Your task to perform on an android device: What's the weather today? Image 0: 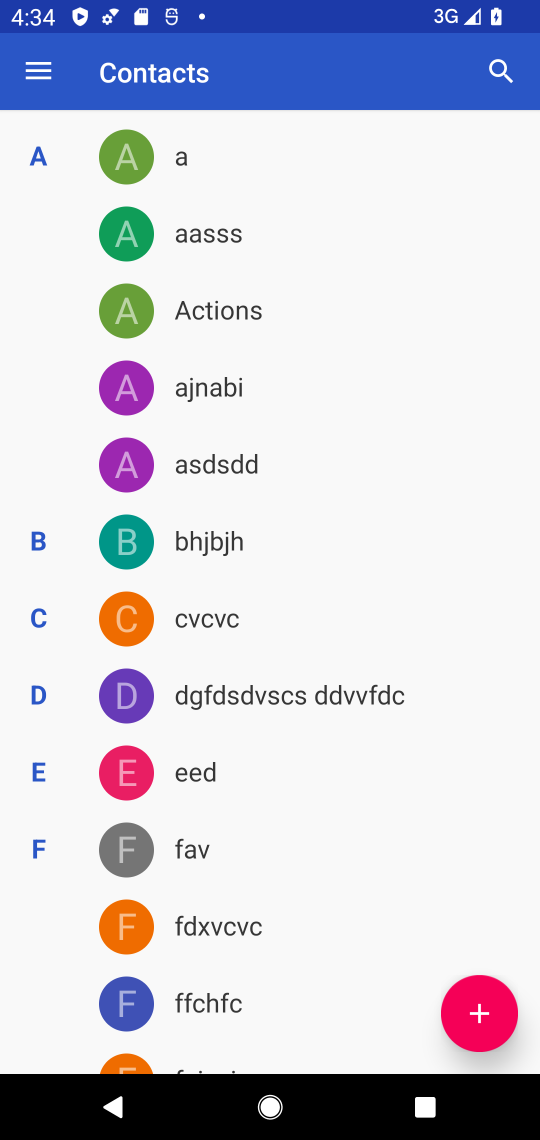
Step 0: press home button
Your task to perform on an android device: What's the weather today? Image 1: 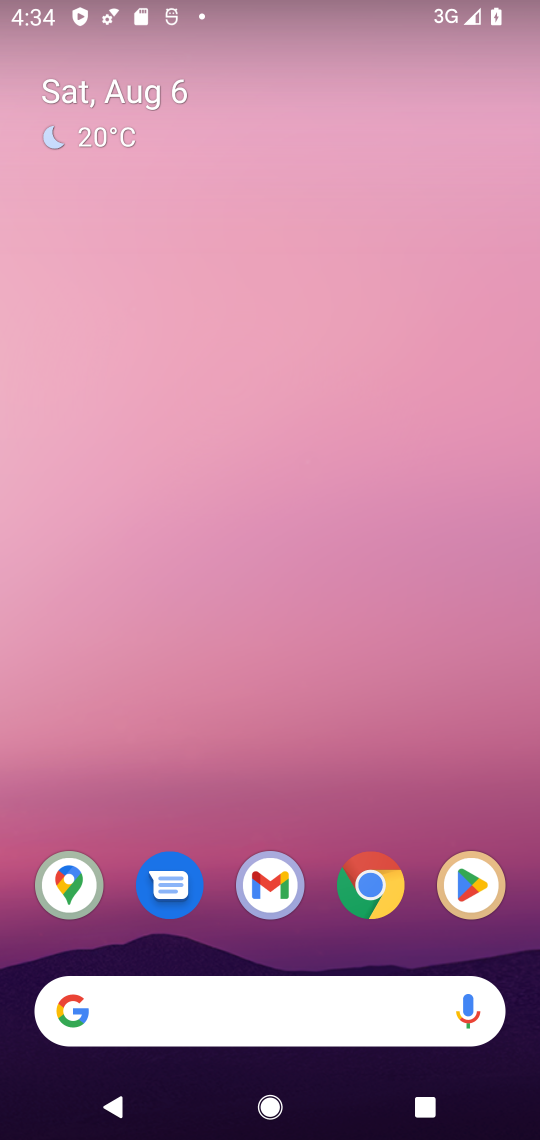
Step 1: drag from (401, 927) to (353, 29)
Your task to perform on an android device: What's the weather today? Image 2: 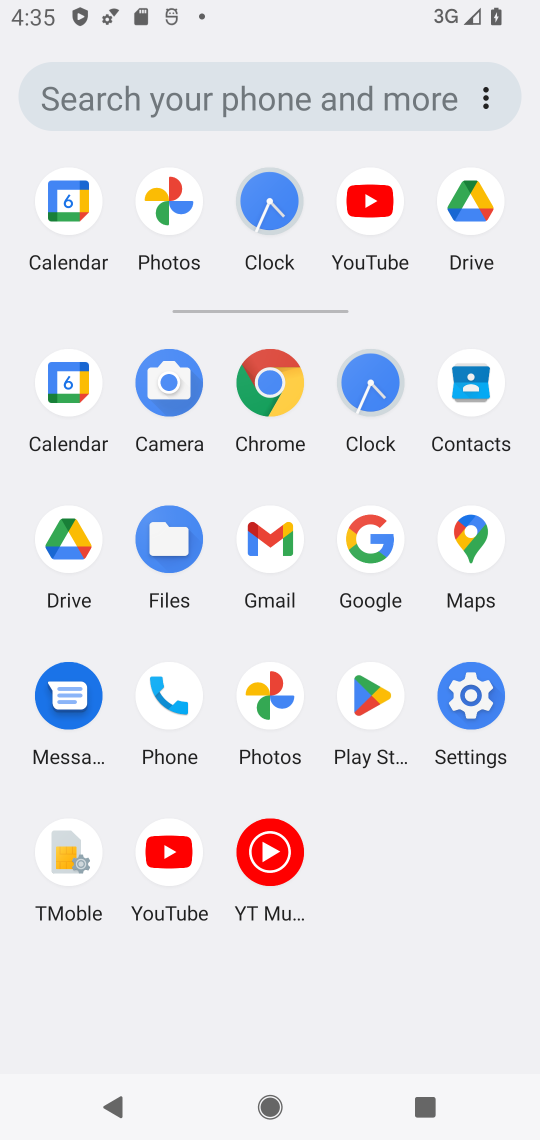
Step 2: click (364, 540)
Your task to perform on an android device: What's the weather today? Image 3: 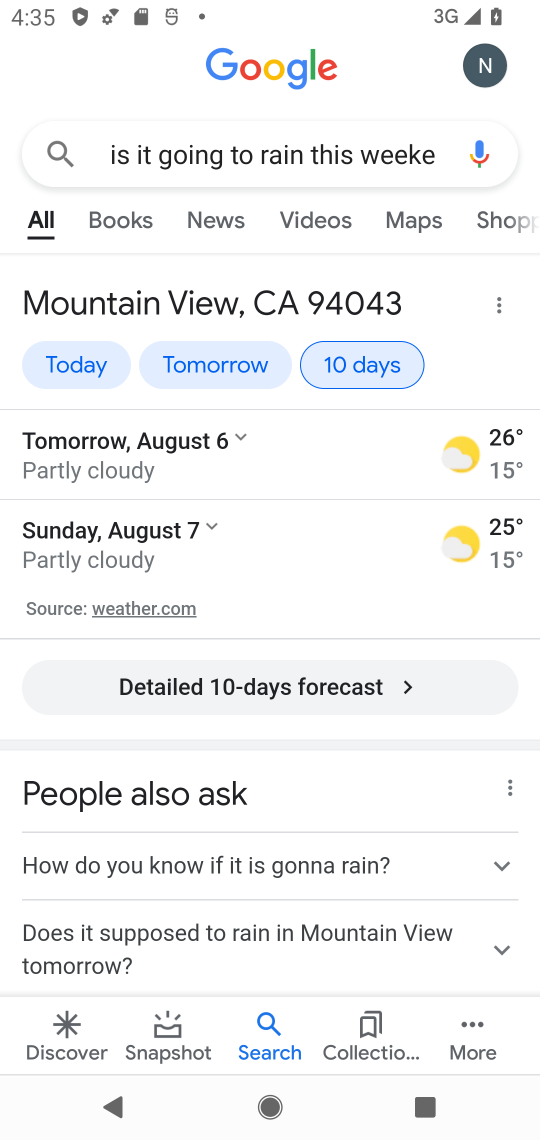
Step 3: press back button
Your task to perform on an android device: What's the weather today? Image 4: 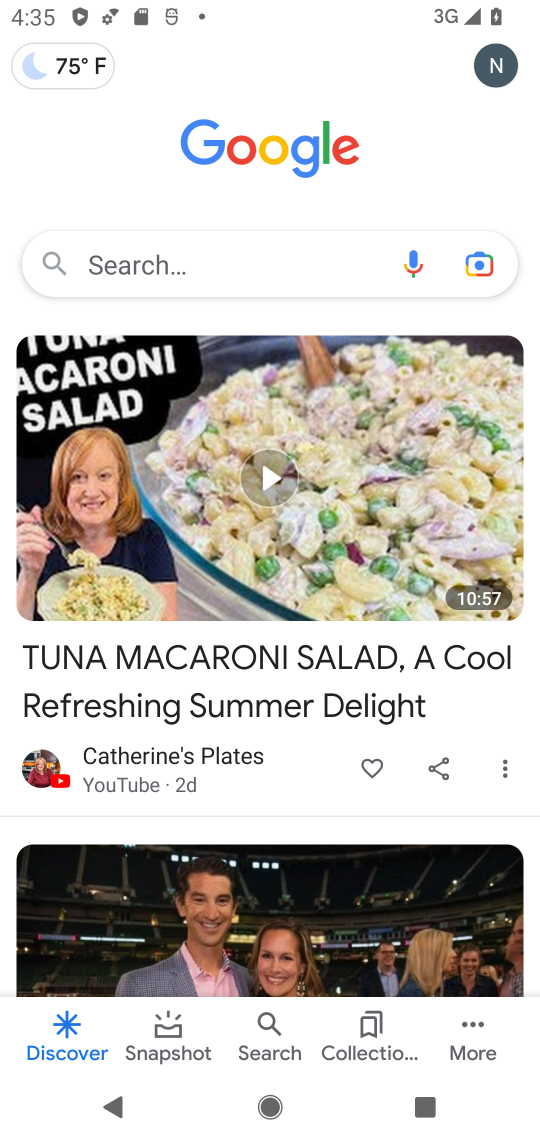
Step 4: click (154, 263)
Your task to perform on an android device: What's the weather today? Image 5: 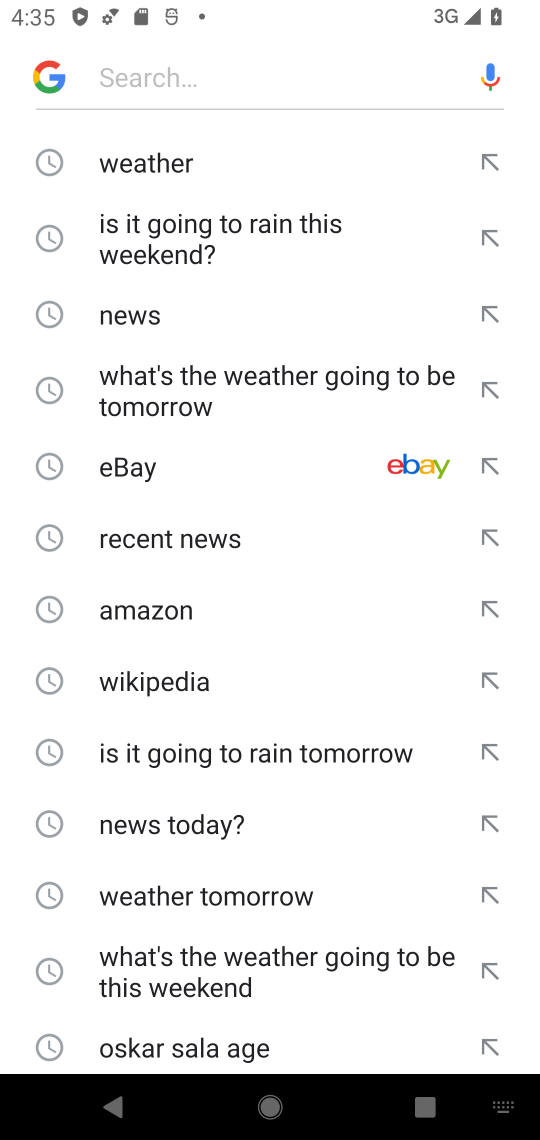
Step 5: drag from (262, 959) to (281, 225)
Your task to perform on an android device: What's the weather today? Image 6: 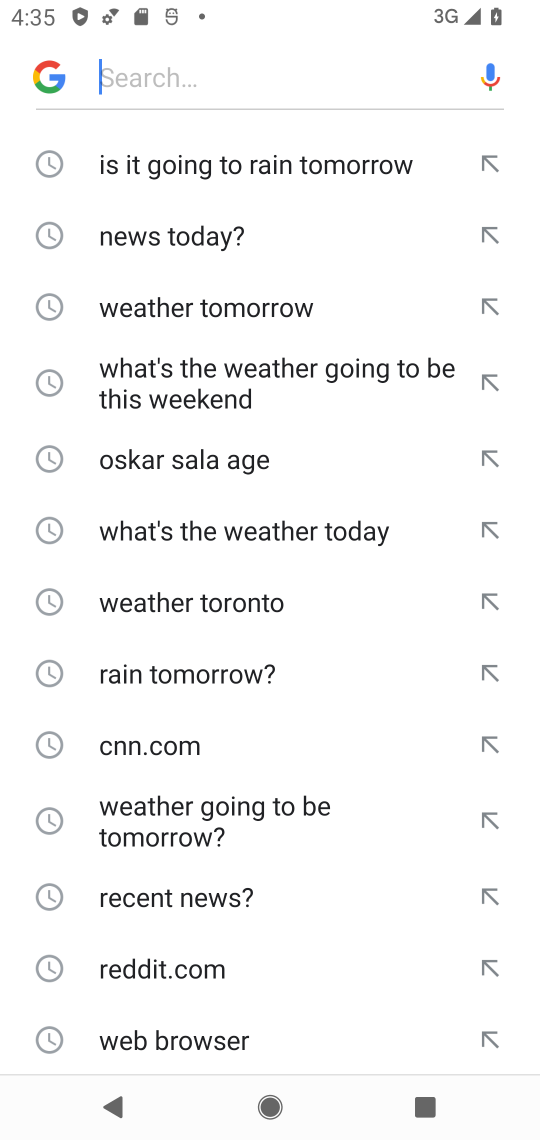
Step 6: drag from (232, 872) to (191, 408)
Your task to perform on an android device: What's the weather today? Image 7: 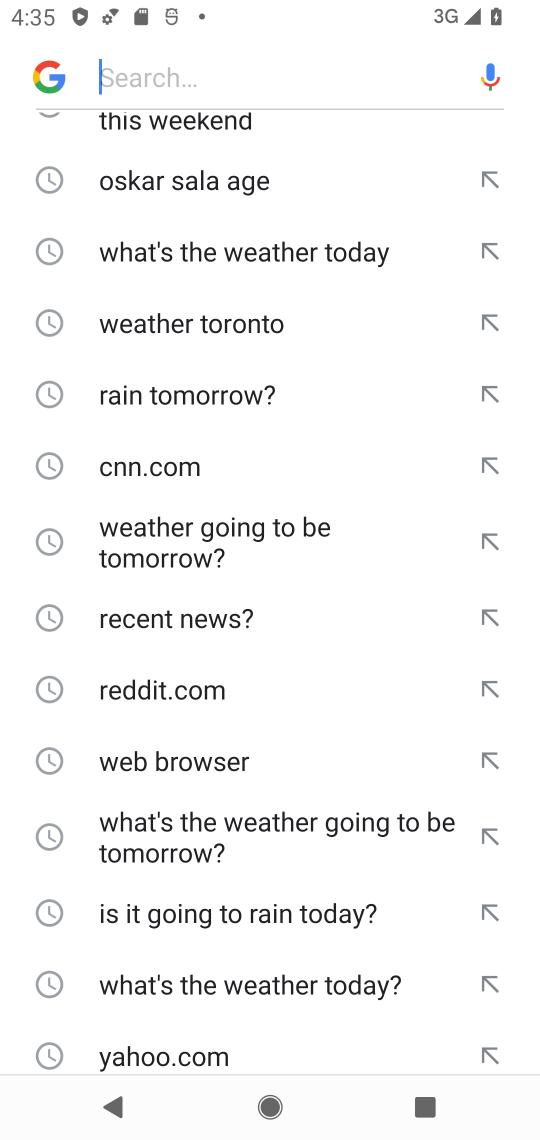
Step 7: click (228, 990)
Your task to perform on an android device: What's the weather today? Image 8: 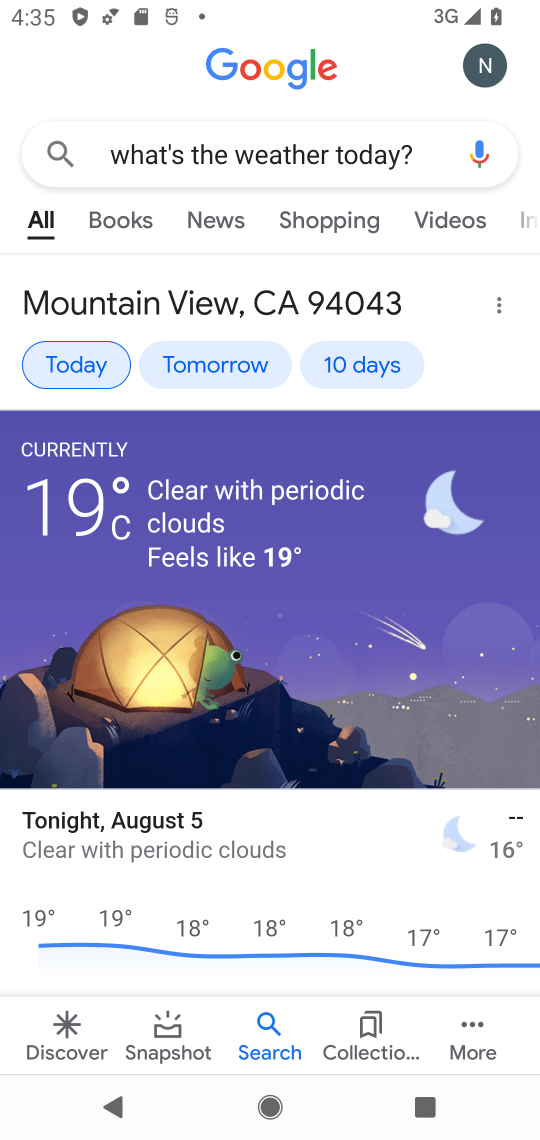
Step 8: task complete